Your task to perform on an android device: Go to location settings Image 0: 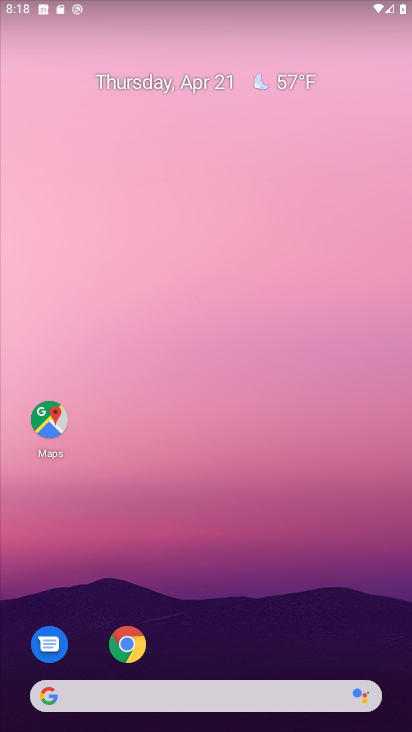
Step 0: drag from (230, 619) to (223, 12)
Your task to perform on an android device: Go to location settings Image 1: 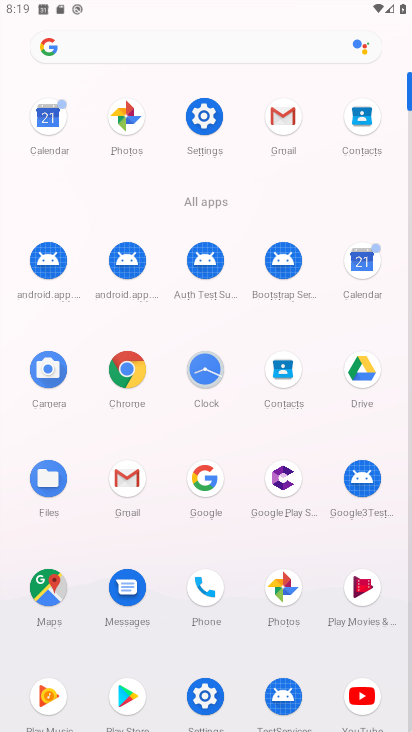
Step 1: click (211, 125)
Your task to perform on an android device: Go to location settings Image 2: 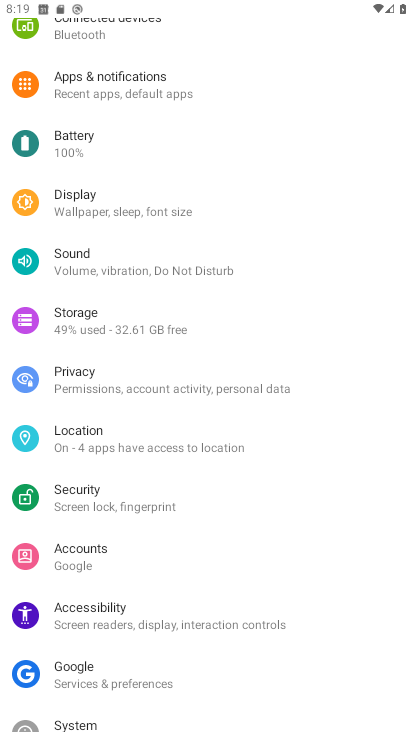
Step 2: click (131, 434)
Your task to perform on an android device: Go to location settings Image 3: 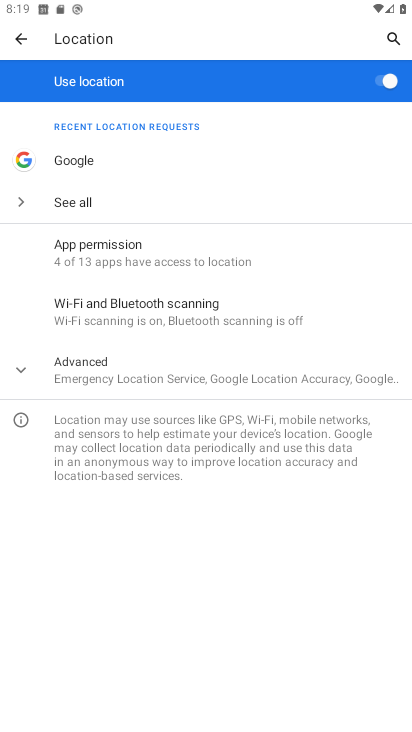
Step 3: click (124, 366)
Your task to perform on an android device: Go to location settings Image 4: 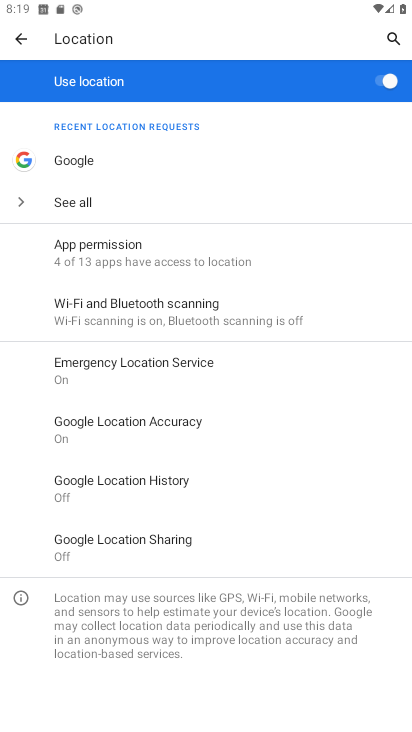
Step 4: task complete